Your task to perform on an android device: Open Google Image 0: 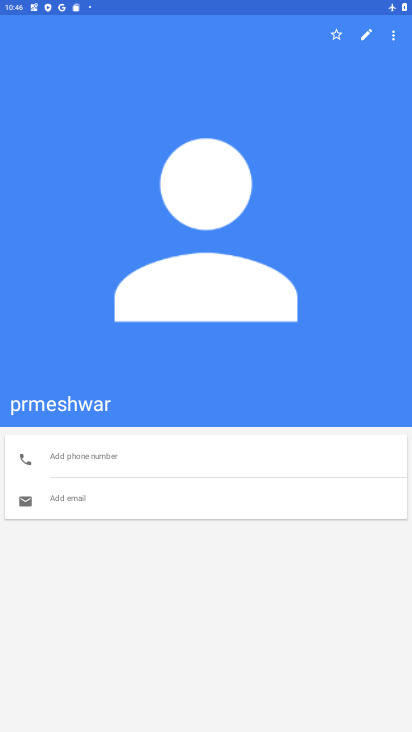
Step 0: press home button
Your task to perform on an android device: Open Google Image 1: 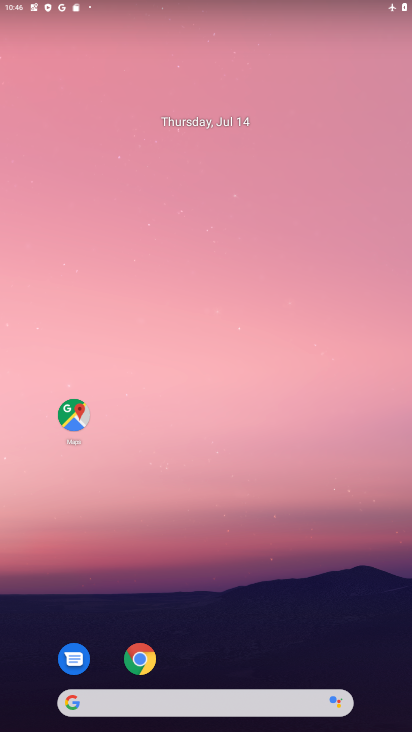
Step 1: drag from (254, 549) to (277, 45)
Your task to perform on an android device: Open Google Image 2: 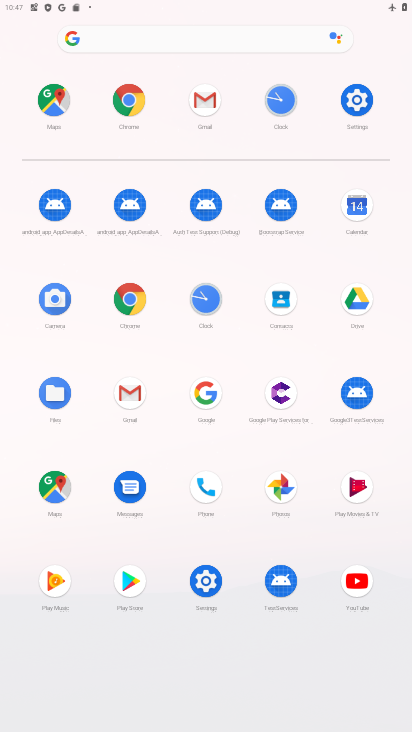
Step 2: click (208, 394)
Your task to perform on an android device: Open Google Image 3: 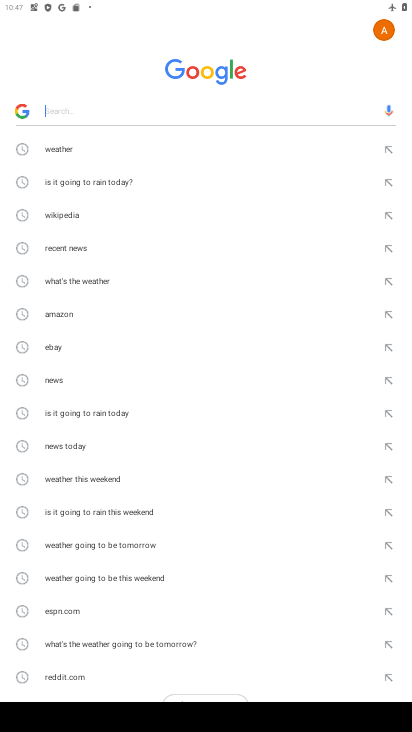
Step 3: task complete